Your task to perform on an android device: empty trash in the gmail app Image 0: 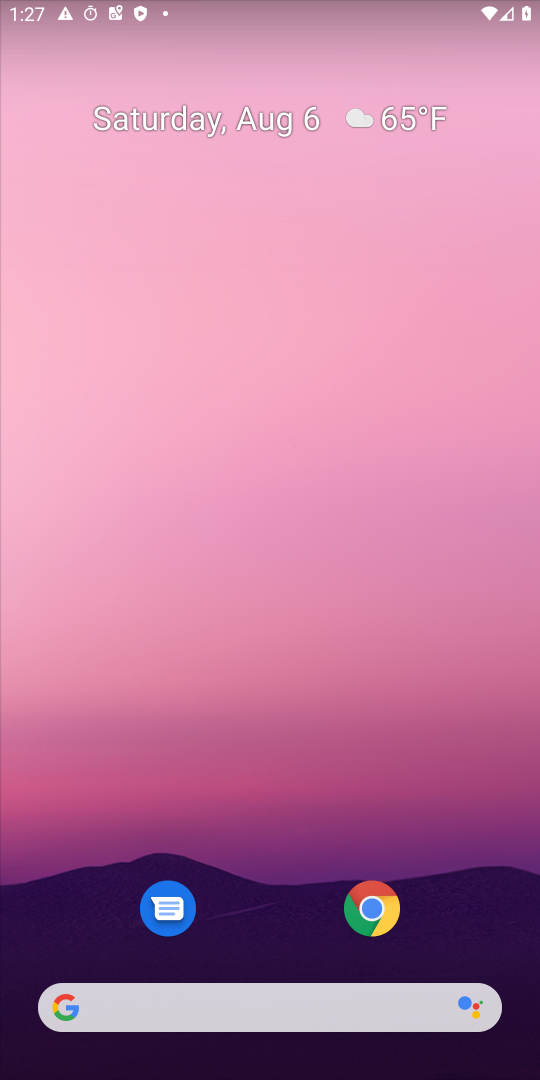
Step 0: drag from (272, 847) to (230, 193)
Your task to perform on an android device: empty trash in the gmail app Image 1: 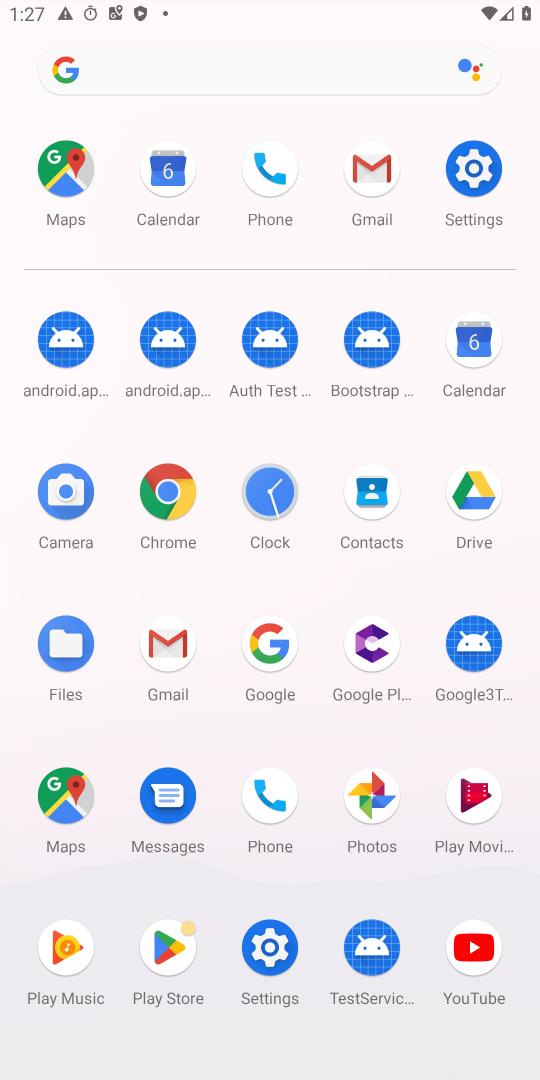
Step 1: click (168, 652)
Your task to perform on an android device: empty trash in the gmail app Image 2: 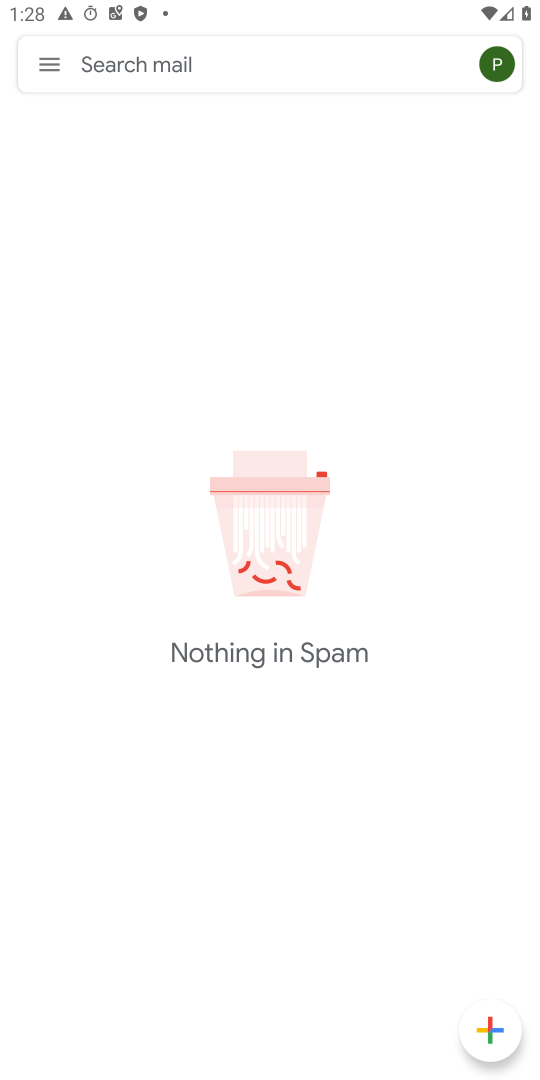
Step 2: click (44, 68)
Your task to perform on an android device: empty trash in the gmail app Image 3: 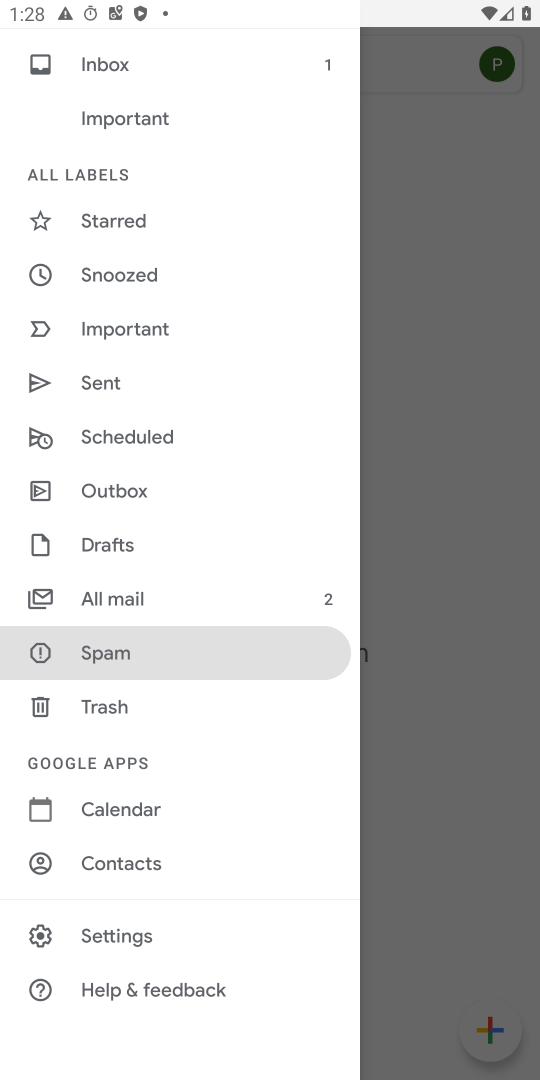
Step 3: click (124, 701)
Your task to perform on an android device: empty trash in the gmail app Image 4: 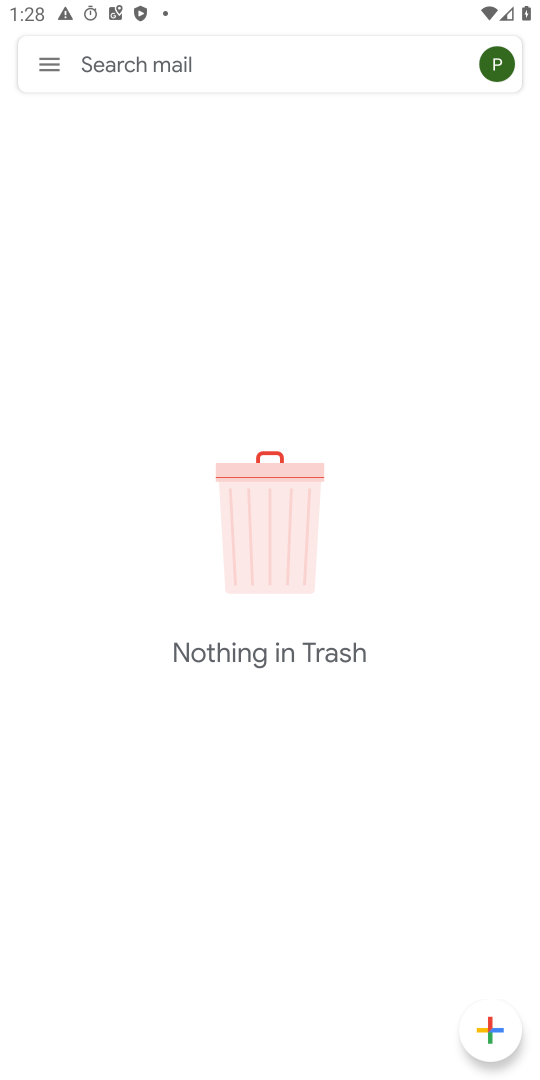
Step 4: task complete